Your task to perform on an android device: see sites visited before in the chrome app Image 0: 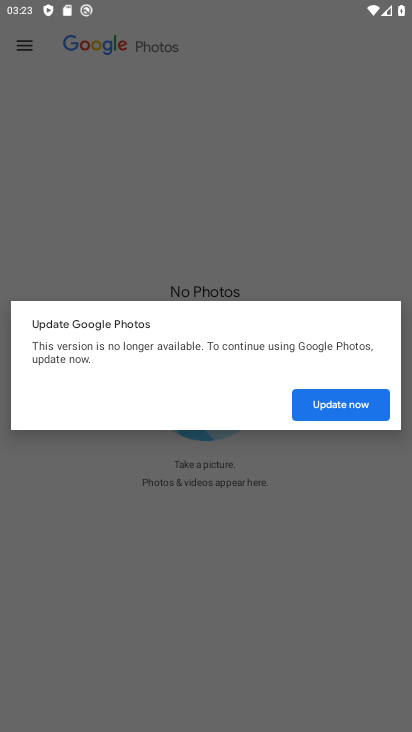
Step 0: press home button
Your task to perform on an android device: see sites visited before in the chrome app Image 1: 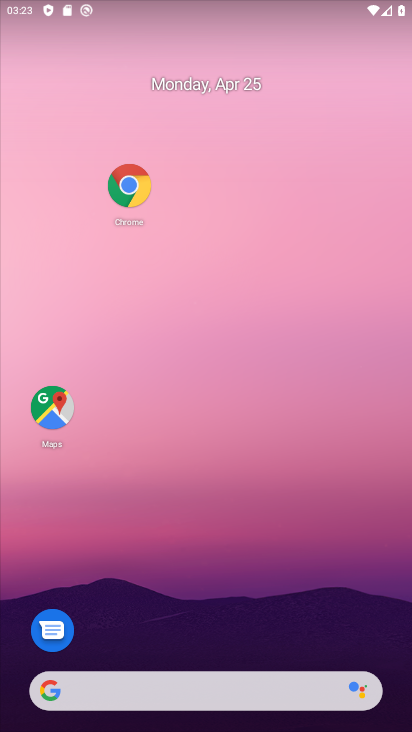
Step 1: click (129, 190)
Your task to perform on an android device: see sites visited before in the chrome app Image 2: 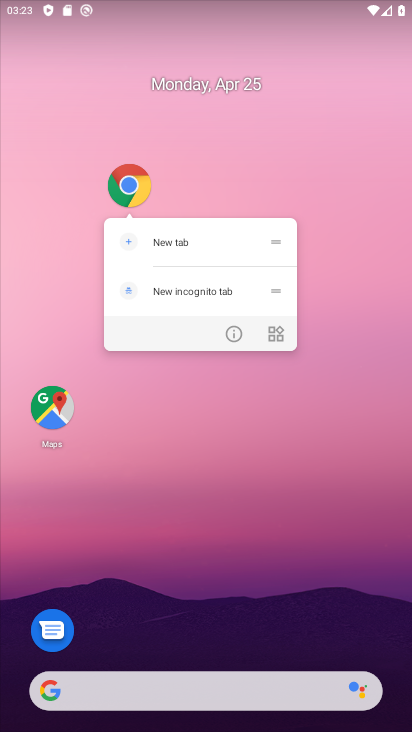
Step 2: click (131, 189)
Your task to perform on an android device: see sites visited before in the chrome app Image 3: 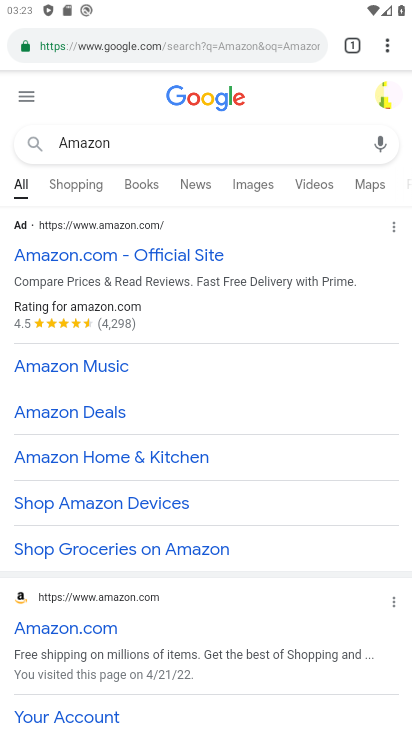
Step 3: click (387, 47)
Your task to perform on an android device: see sites visited before in the chrome app Image 4: 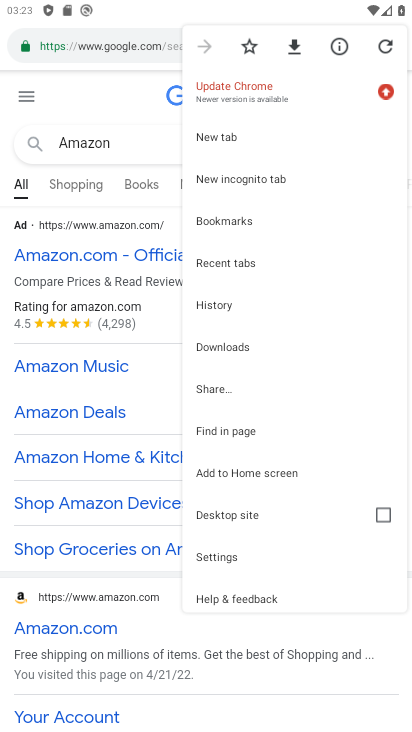
Step 4: click (219, 270)
Your task to perform on an android device: see sites visited before in the chrome app Image 5: 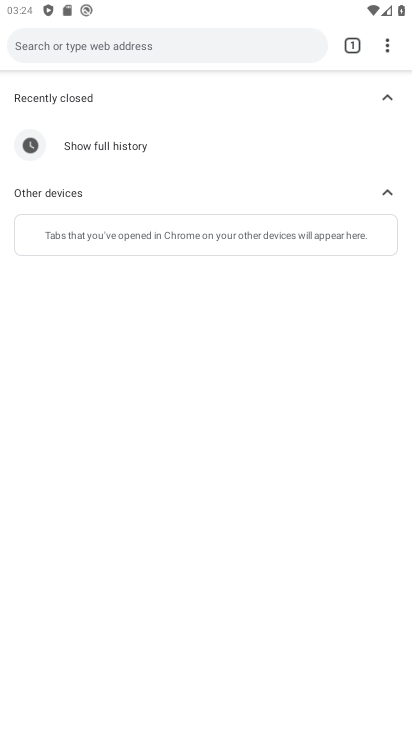
Step 5: task complete